Your task to perform on an android device: turn off wifi Image 0: 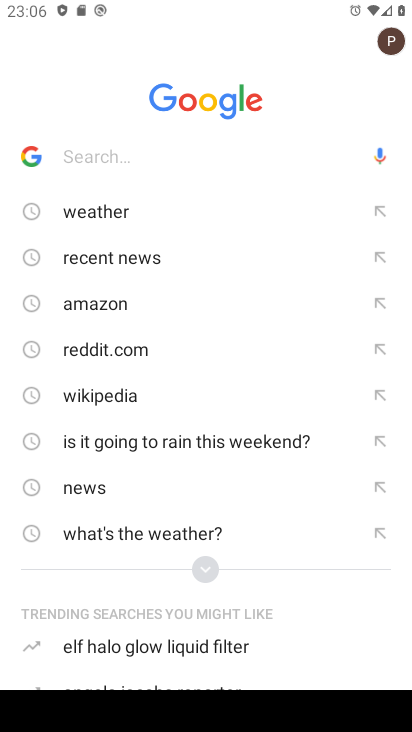
Step 0: drag from (296, 644) to (221, 188)
Your task to perform on an android device: turn off wifi Image 1: 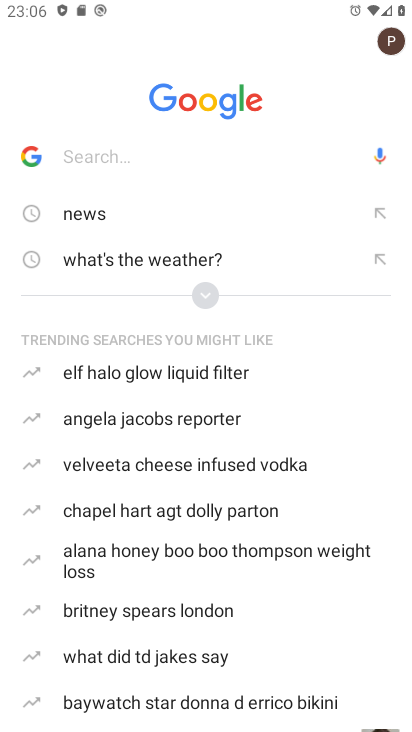
Step 1: press back button
Your task to perform on an android device: turn off wifi Image 2: 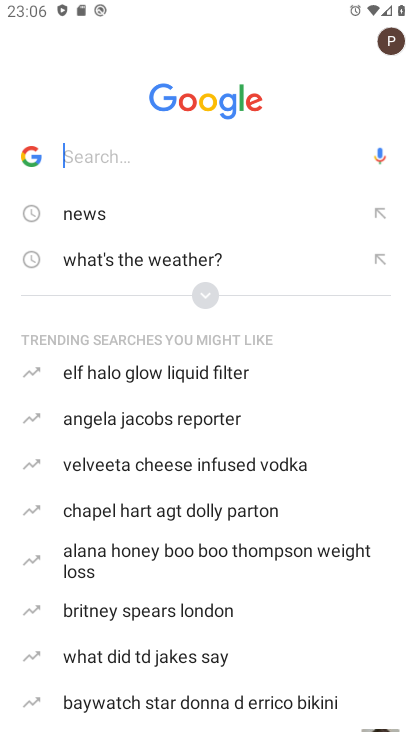
Step 2: press back button
Your task to perform on an android device: turn off wifi Image 3: 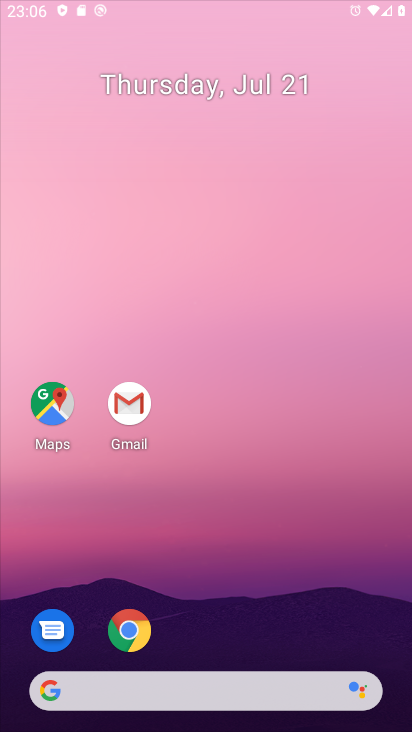
Step 3: press back button
Your task to perform on an android device: turn off wifi Image 4: 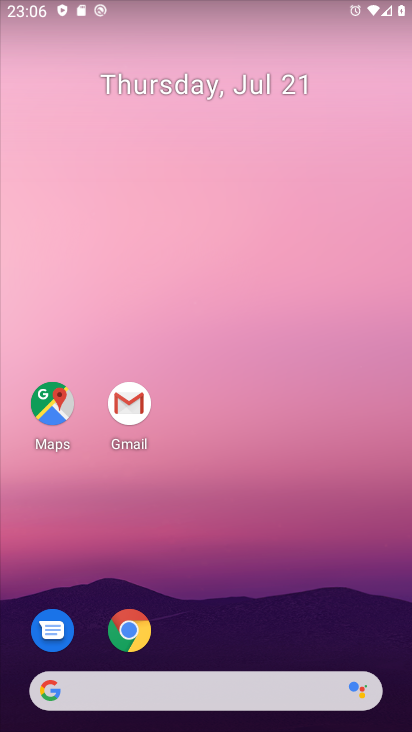
Step 4: drag from (246, 666) to (178, 47)
Your task to perform on an android device: turn off wifi Image 5: 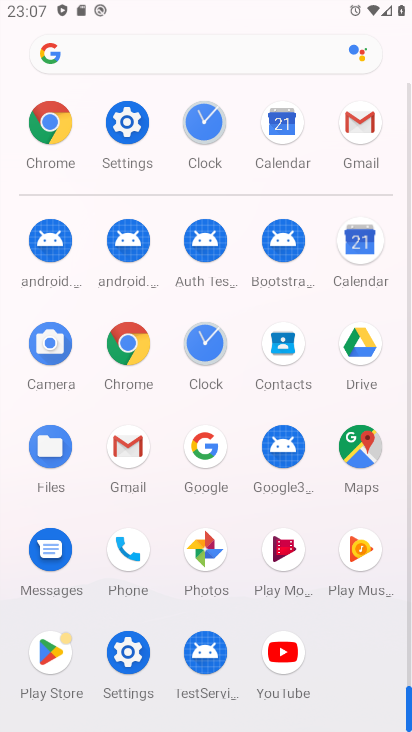
Step 5: click (125, 131)
Your task to perform on an android device: turn off wifi Image 6: 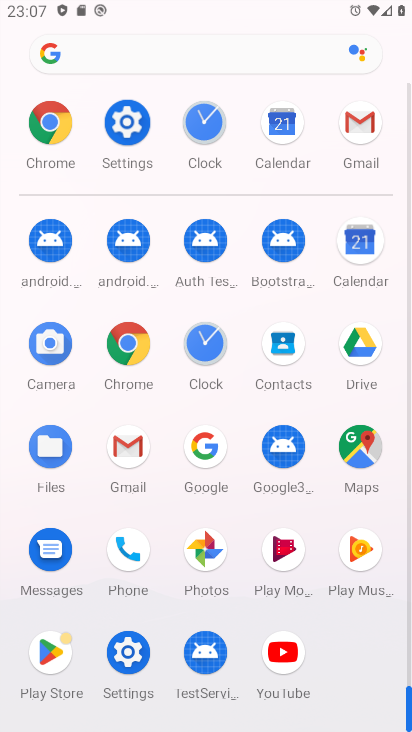
Step 6: click (124, 130)
Your task to perform on an android device: turn off wifi Image 7: 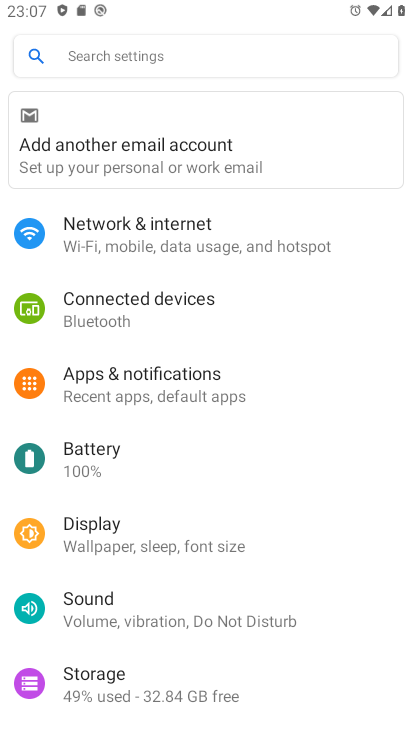
Step 7: drag from (184, 239) to (236, 243)
Your task to perform on an android device: turn off wifi Image 8: 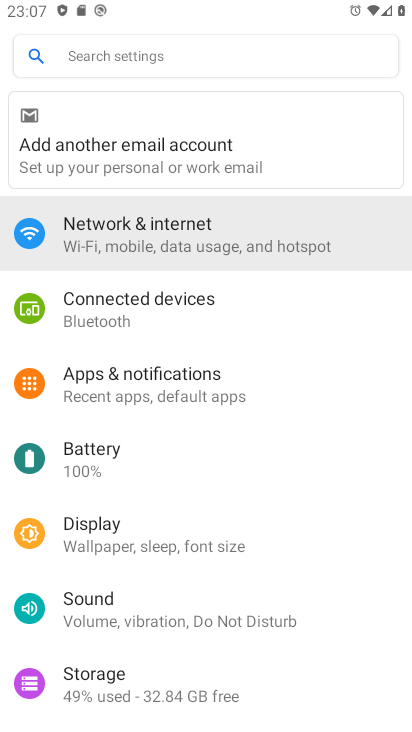
Step 8: click (176, 254)
Your task to perform on an android device: turn off wifi Image 9: 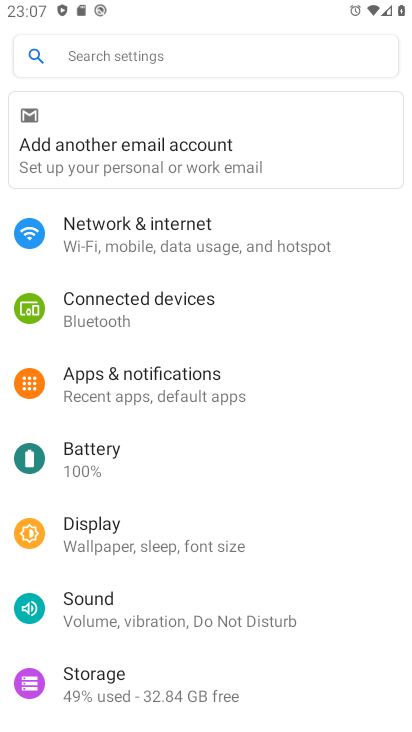
Step 9: click (175, 237)
Your task to perform on an android device: turn off wifi Image 10: 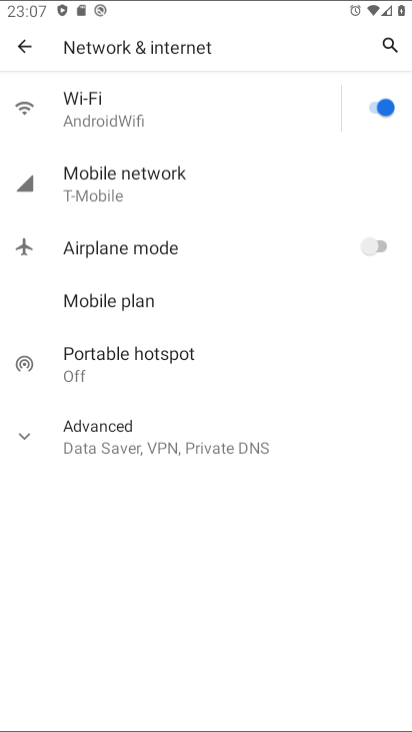
Step 10: click (203, 241)
Your task to perform on an android device: turn off wifi Image 11: 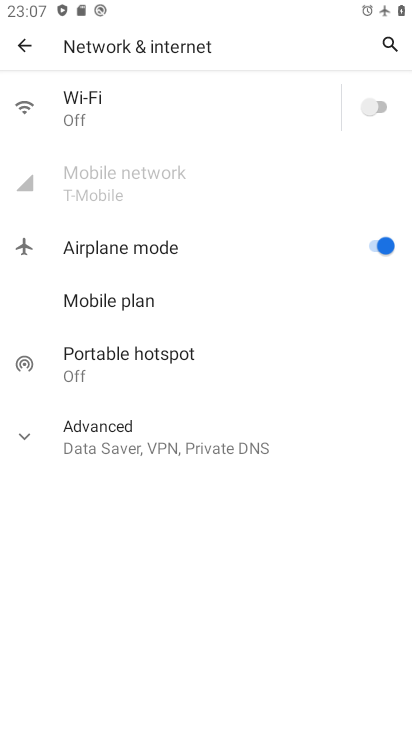
Step 11: task complete